Your task to perform on an android device: turn off location Image 0: 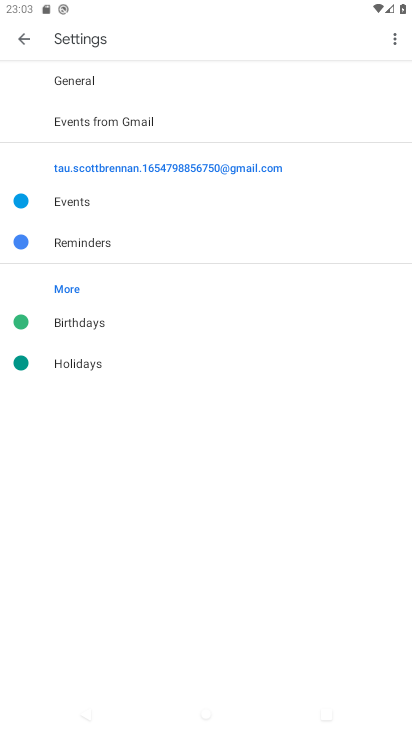
Step 0: press home button
Your task to perform on an android device: turn off location Image 1: 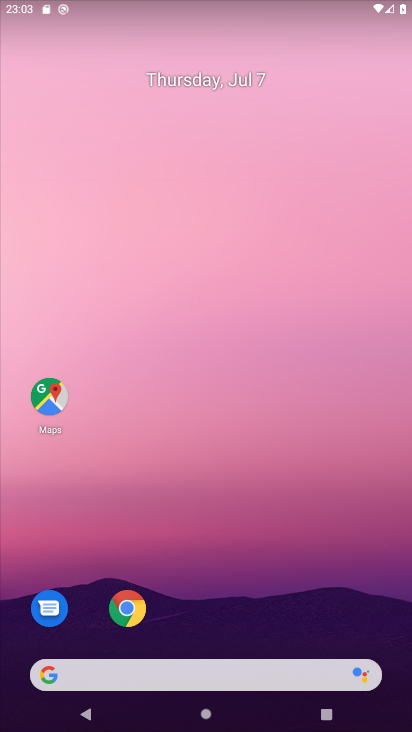
Step 1: drag from (241, 599) to (252, 98)
Your task to perform on an android device: turn off location Image 2: 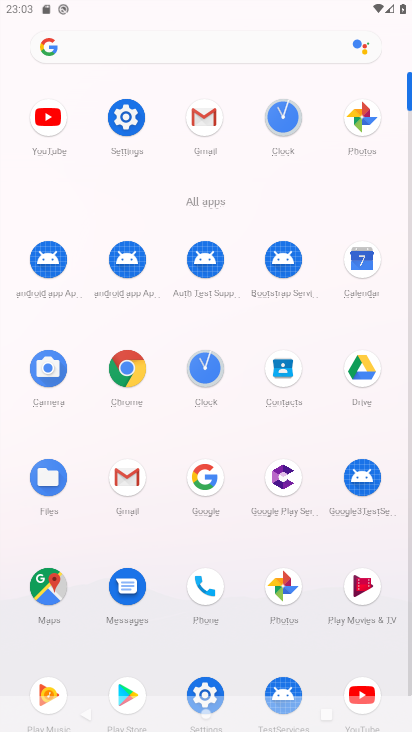
Step 2: click (133, 120)
Your task to perform on an android device: turn off location Image 3: 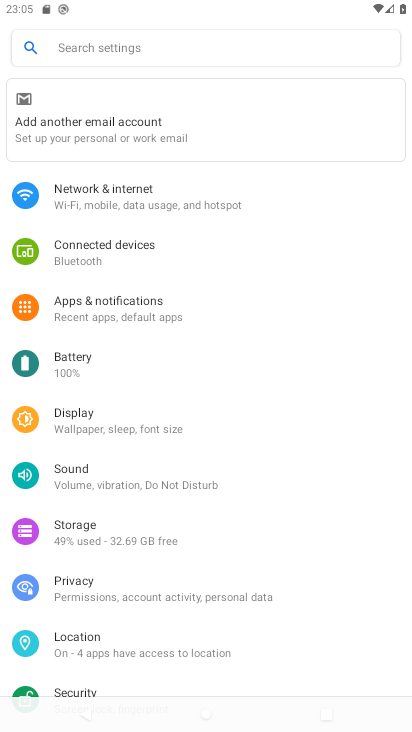
Step 3: click (108, 637)
Your task to perform on an android device: turn off location Image 4: 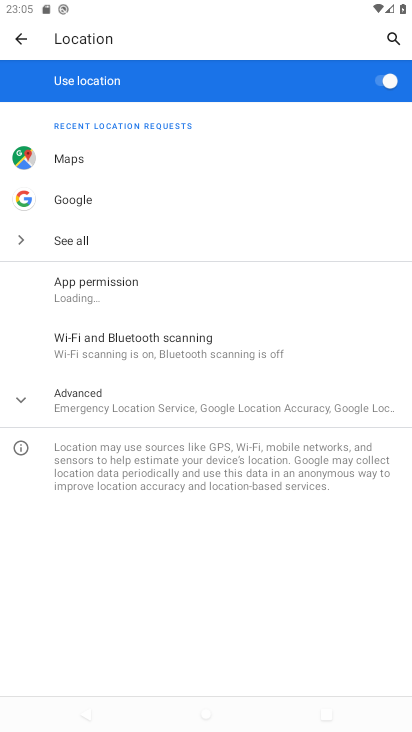
Step 4: click (385, 71)
Your task to perform on an android device: turn off location Image 5: 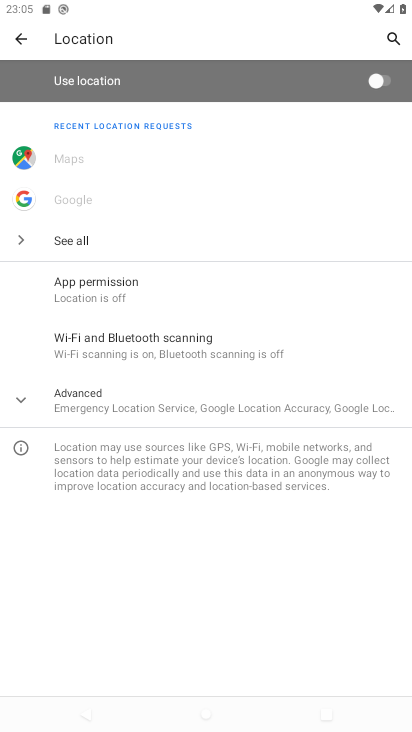
Step 5: task complete